Your task to perform on an android device: turn off airplane mode Image 0: 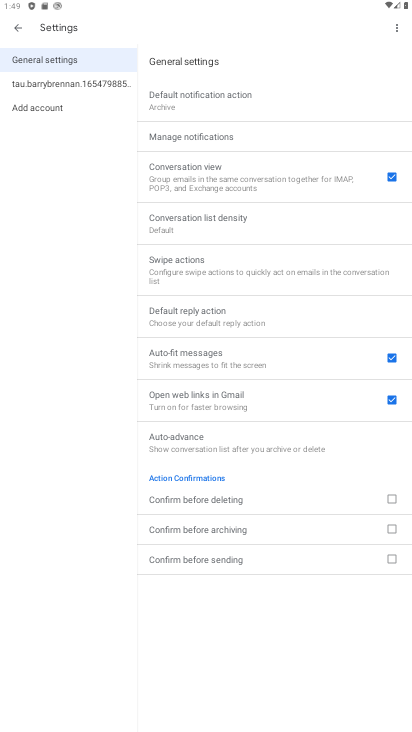
Step 0: press home button
Your task to perform on an android device: turn off airplane mode Image 1: 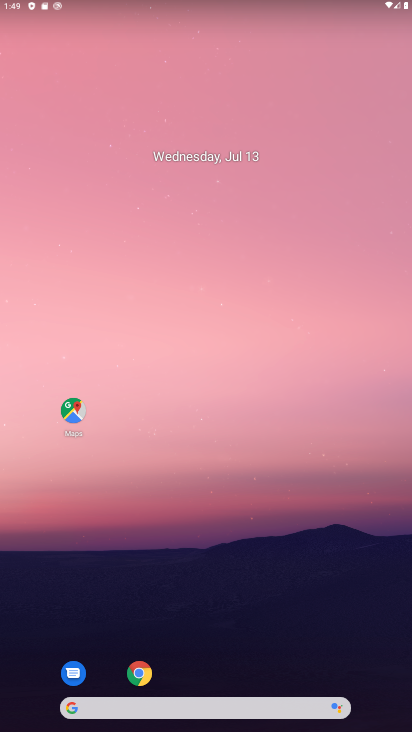
Step 1: drag from (246, 514) to (231, 70)
Your task to perform on an android device: turn off airplane mode Image 2: 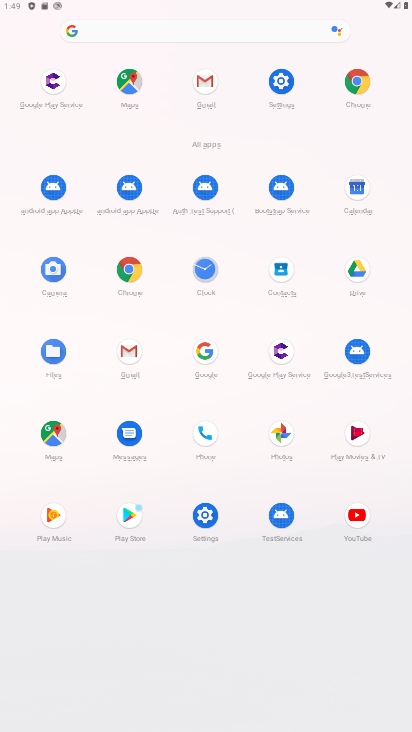
Step 2: click (271, 84)
Your task to perform on an android device: turn off airplane mode Image 3: 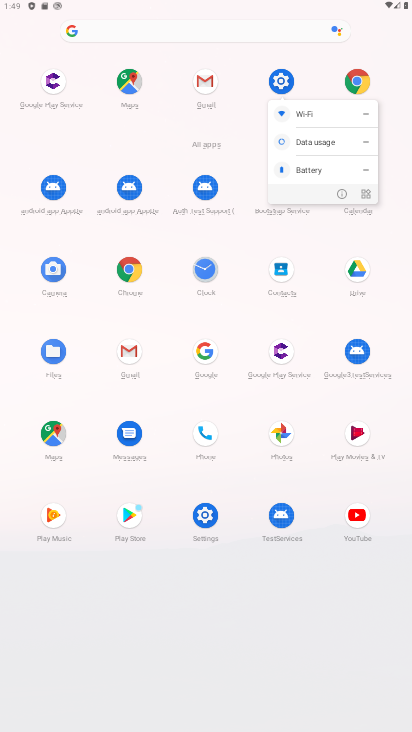
Step 3: click (282, 74)
Your task to perform on an android device: turn off airplane mode Image 4: 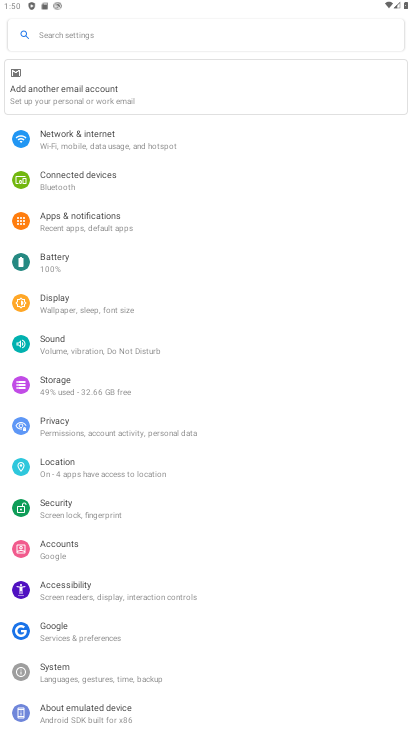
Step 4: click (131, 142)
Your task to perform on an android device: turn off airplane mode Image 5: 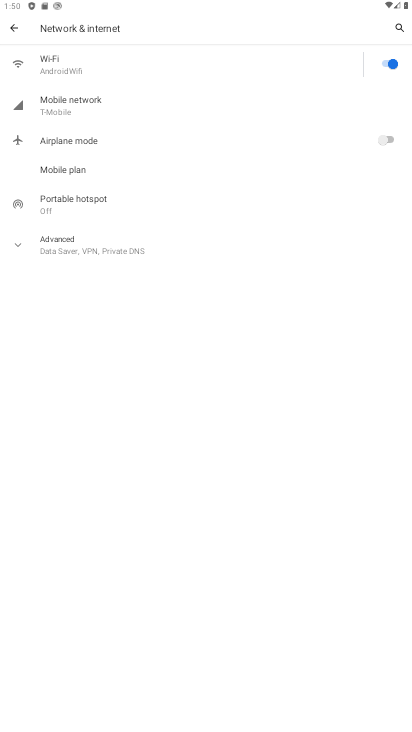
Step 5: task complete